Your task to perform on an android device: Go to privacy settings Image 0: 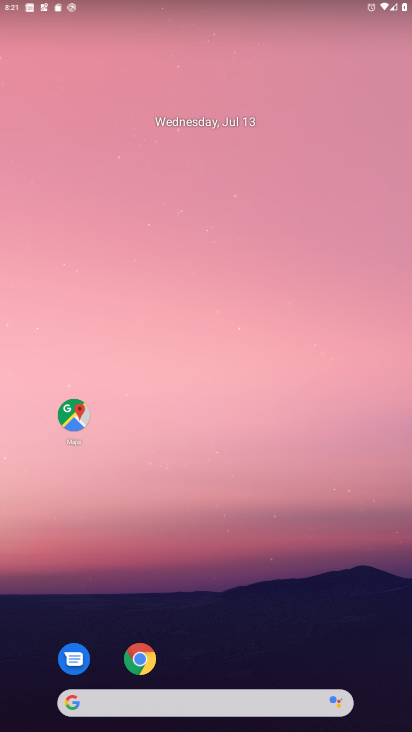
Step 0: drag from (235, 618) to (163, 16)
Your task to perform on an android device: Go to privacy settings Image 1: 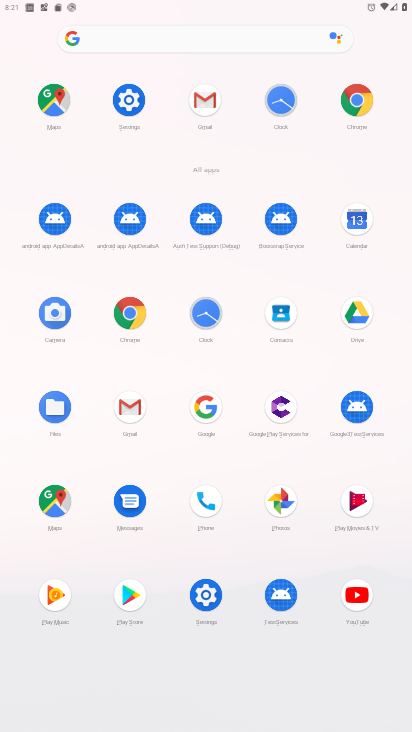
Step 1: click (130, 94)
Your task to perform on an android device: Go to privacy settings Image 2: 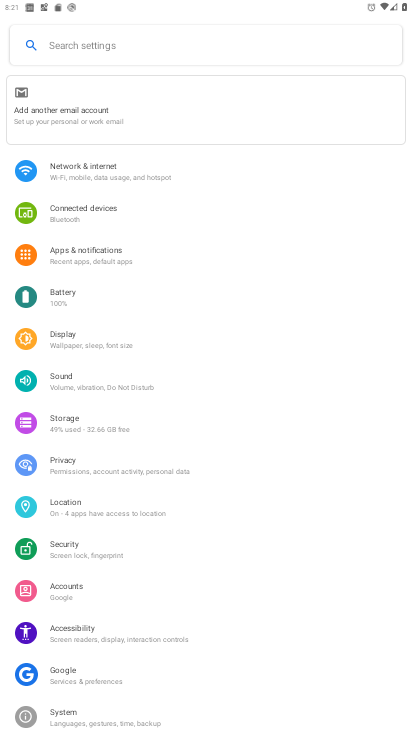
Step 2: drag from (220, 359) to (90, 369)
Your task to perform on an android device: Go to privacy settings Image 3: 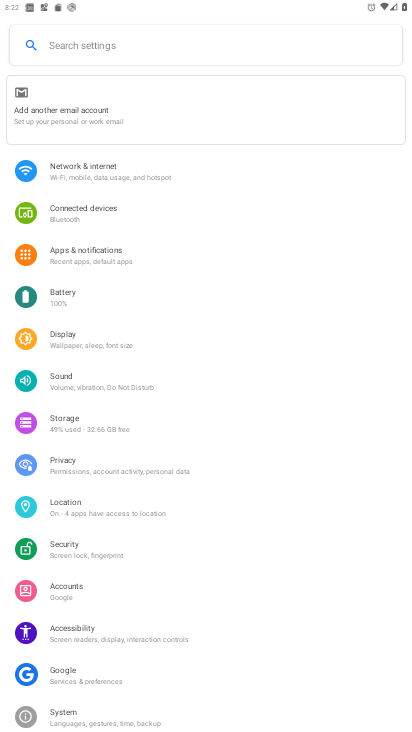
Step 3: click (64, 463)
Your task to perform on an android device: Go to privacy settings Image 4: 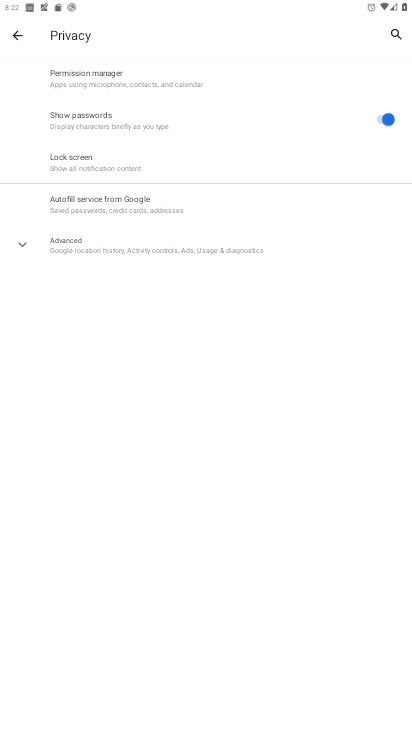
Step 4: task complete